Your task to perform on an android device: toggle wifi Image 0: 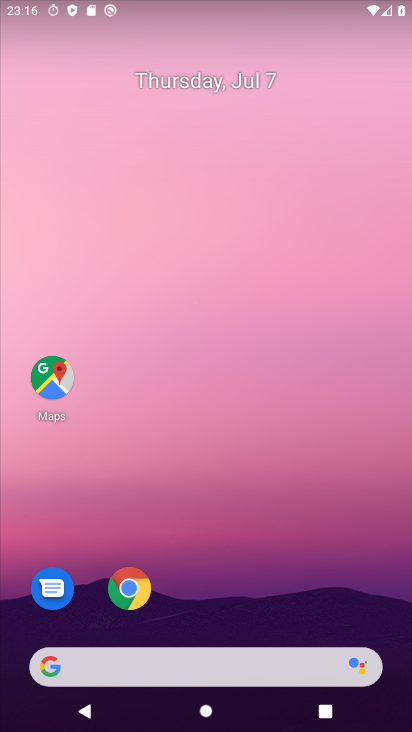
Step 0: drag from (253, 532) to (289, 77)
Your task to perform on an android device: toggle wifi Image 1: 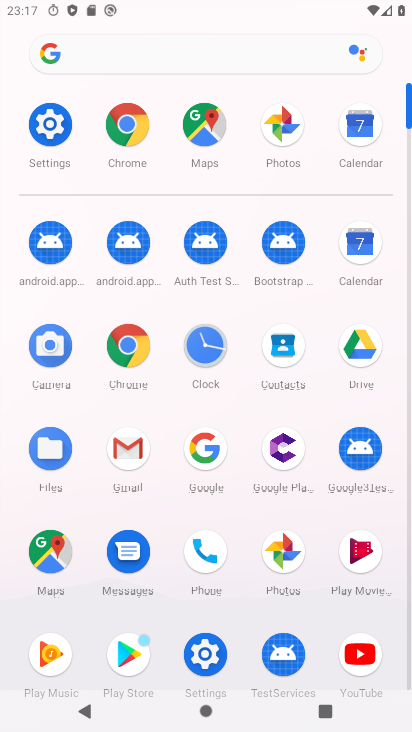
Step 1: click (47, 126)
Your task to perform on an android device: toggle wifi Image 2: 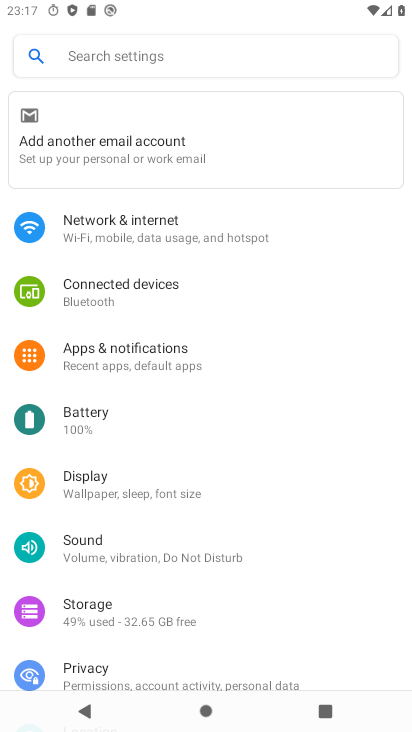
Step 2: click (157, 228)
Your task to perform on an android device: toggle wifi Image 3: 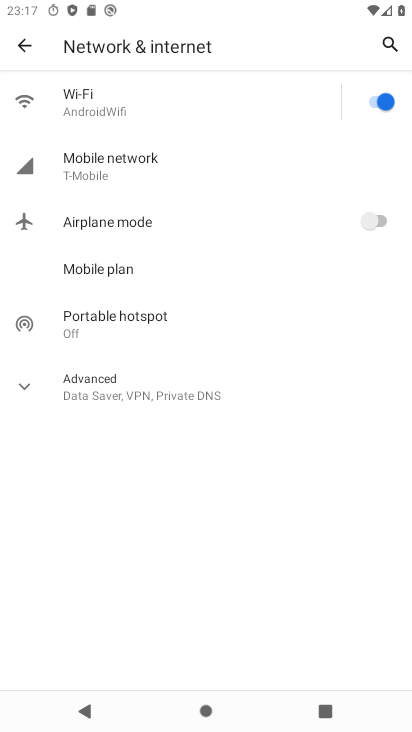
Step 3: click (391, 105)
Your task to perform on an android device: toggle wifi Image 4: 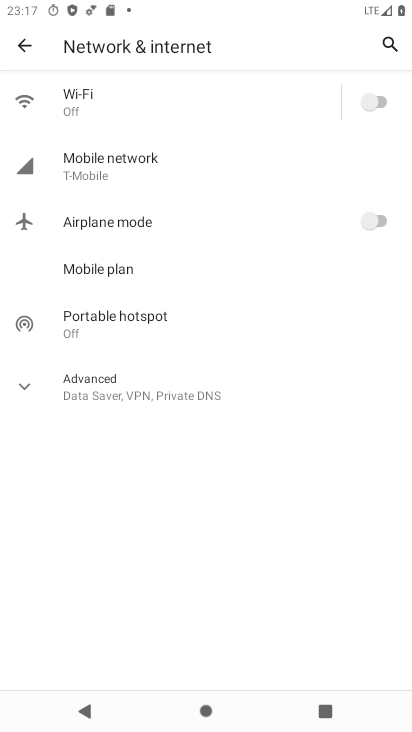
Step 4: task complete